Your task to perform on an android device: star an email in the gmail app Image 0: 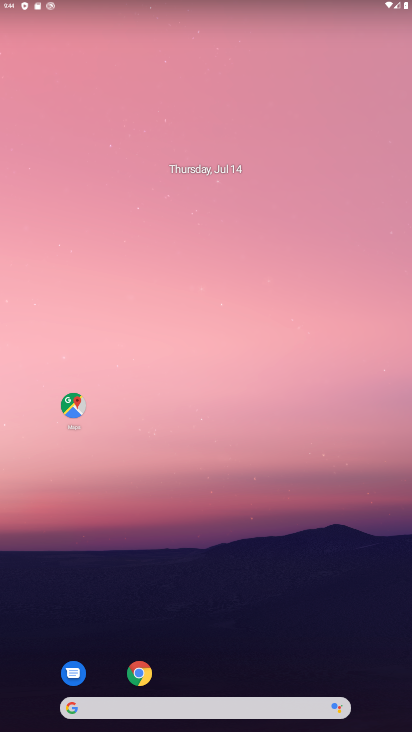
Step 0: drag from (235, 579) to (200, 188)
Your task to perform on an android device: star an email in the gmail app Image 1: 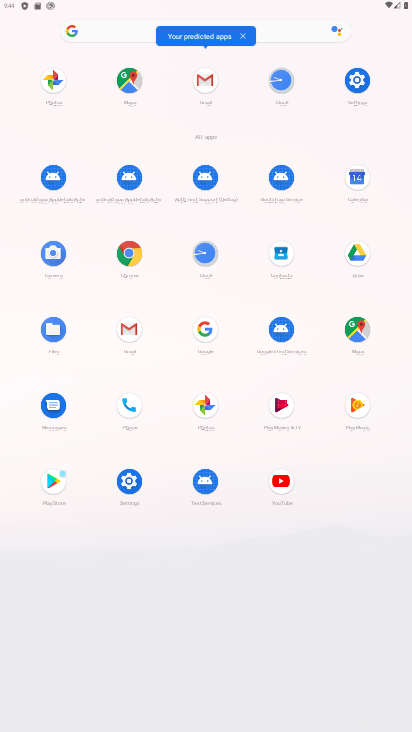
Step 1: click (129, 326)
Your task to perform on an android device: star an email in the gmail app Image 2: 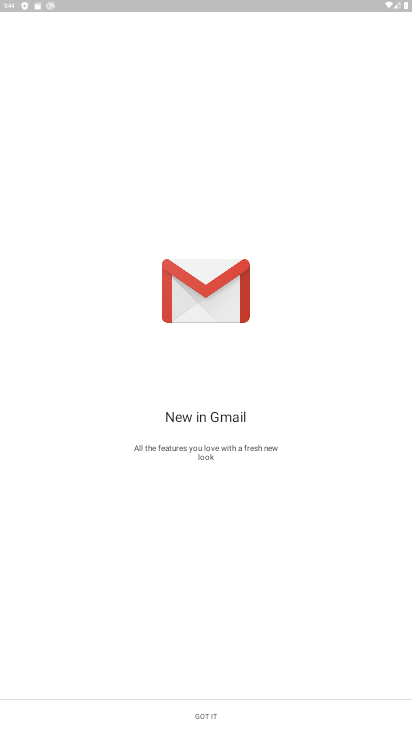
Step 2: click (202, 712)
Your task to perform on an android device: star an email in the gmail app Image 3: 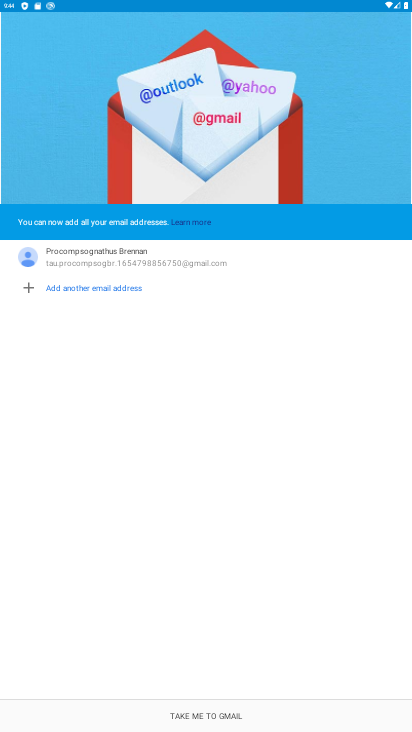
Step 3: click (202, 712)
Your task to perform on an android device: star an email in the gmail app Image 4: 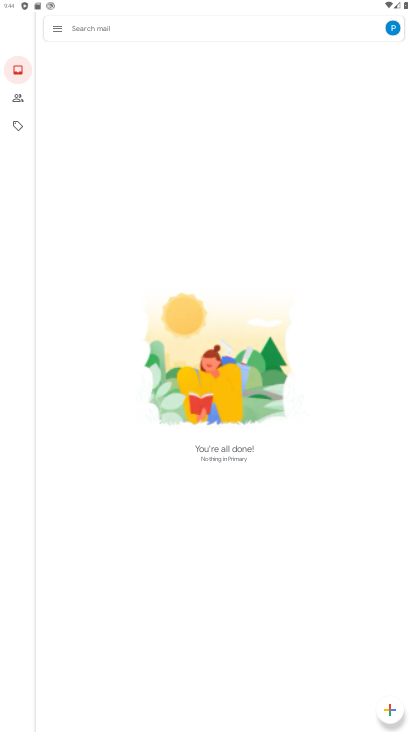
Step 4: task complete